Your task to perform on an android device: What is the recent news? Image 0: 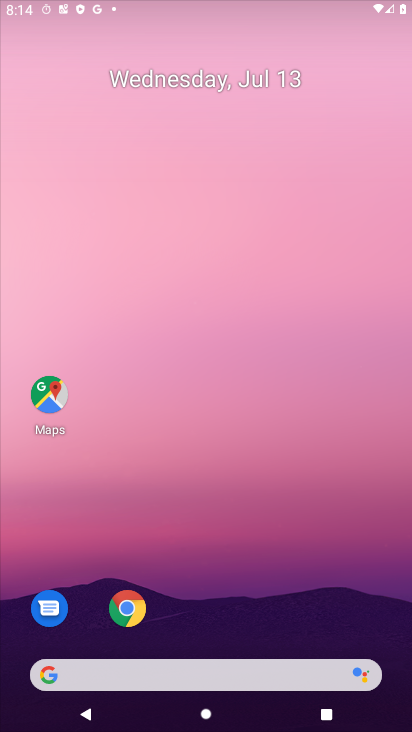
Step 0: drag from (280, 641) to (252, 238)
Your task to perform on an android device: What is the recent news? Image 1: 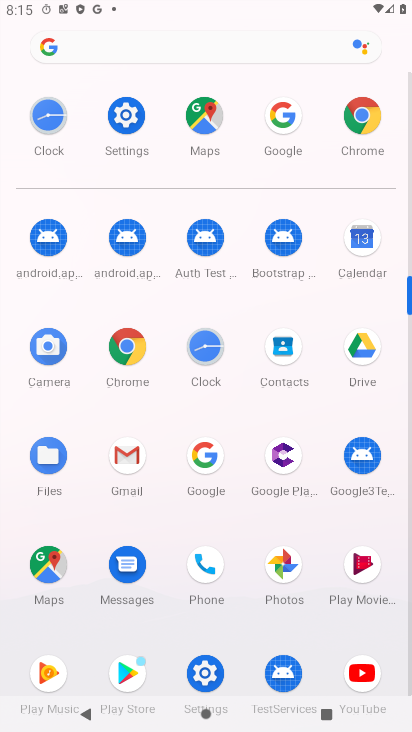
Step 1: click (129, 104)
Your task to perform on an android device: What is the recent news? Image 2: 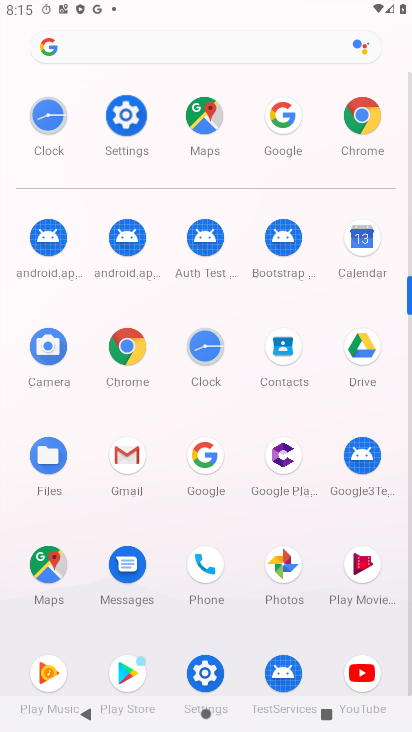
Step 2: click (130, 104)
Your task to perform on an android device: What is the recent news? Image 3: 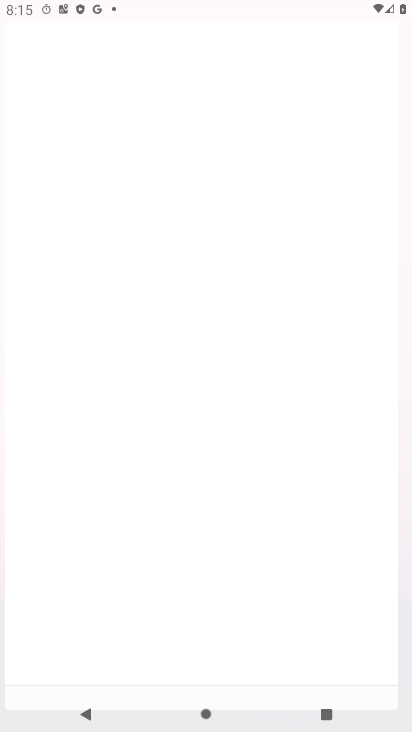
Step 3: click (156, 115)
Your task to perform on an android device: What is the recent news? Image 4: 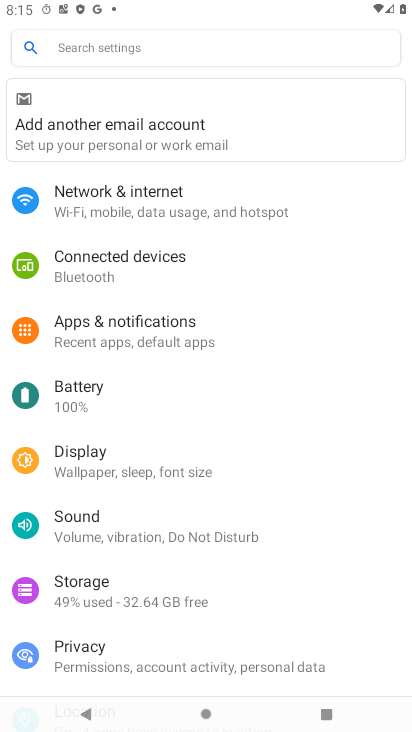
Step 4: press back button
Your task to perform on an android device: What is the recent news? Image 5: 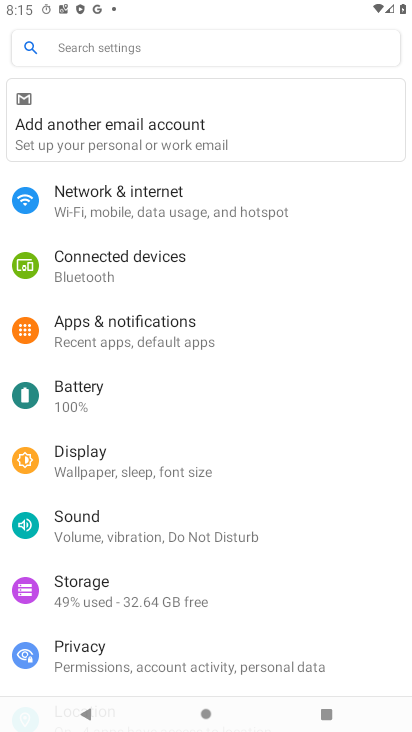
Step 5: press back button
Your task to perform on an android device: What is the recent news? Image 6: 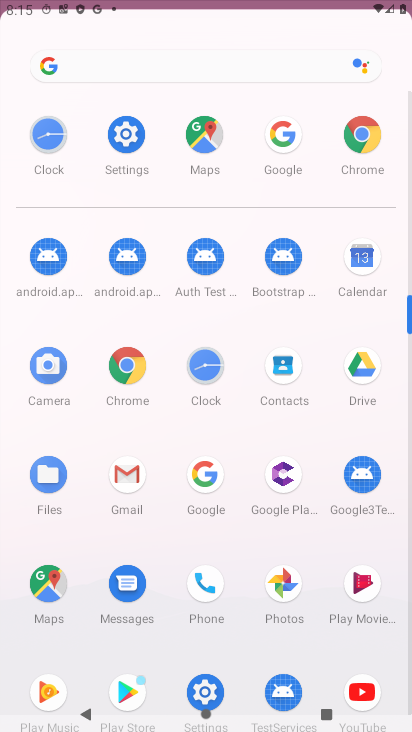
Step 6: press back button
Your task to perform on an android device: What is the recent news? Image 7: 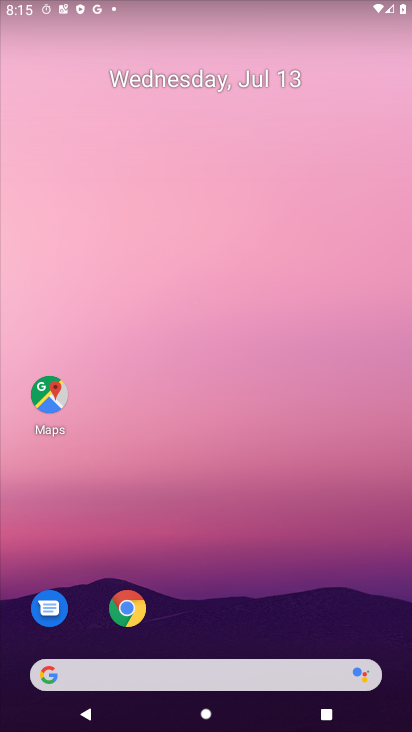
Step 7: drag from (166, 331) to (136, 11)
Your task to perform on an android device: What is the recent news? Image 8: 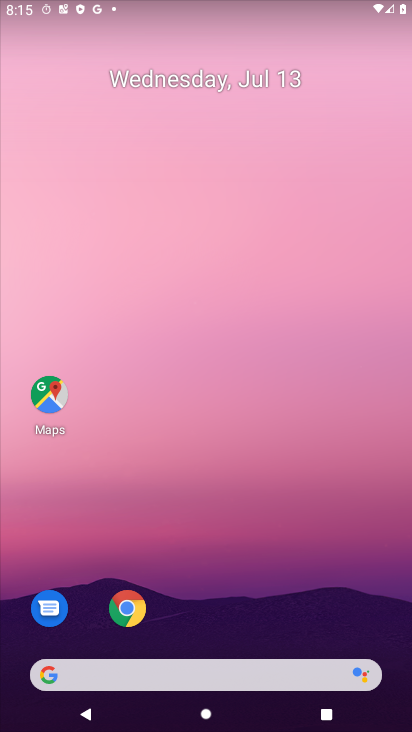
Step 8: drag from (260, 391) to (216, 76)
Your task to perform on an android device: What is the recent news? Image 9: 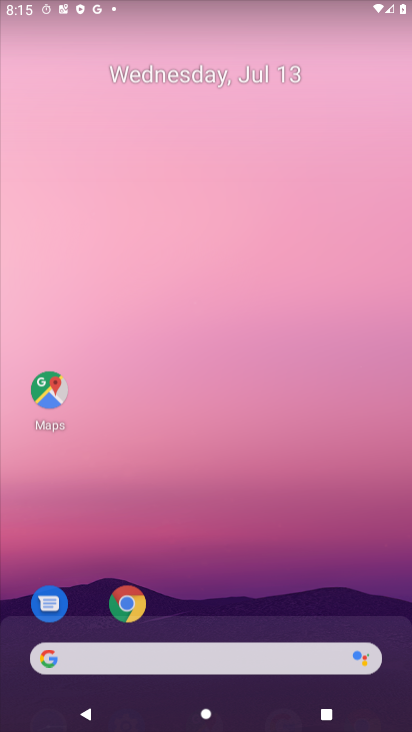
Step 9: drag from (198, 611) to (104, 30)
Your task to perform on an android device: What is the recent news? Image 10: 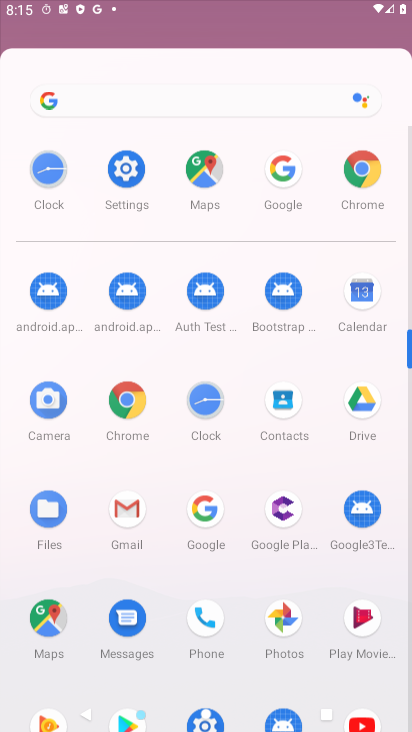
Step 10: drag from (232, 440) to (147, 62)
Your task to perform on an android device: What is the recent news? Image 11: 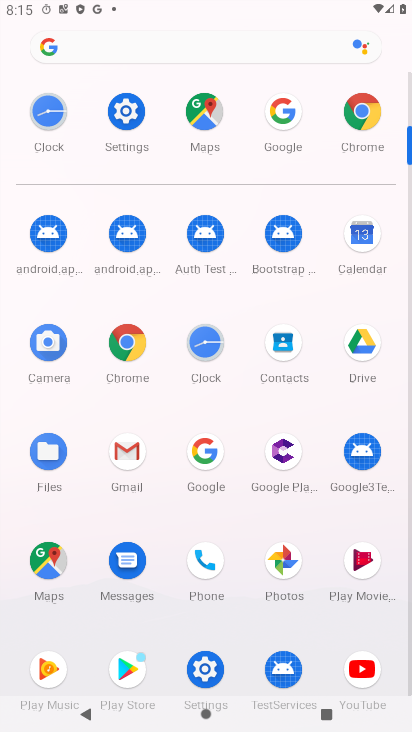
Step 11: click (356, 106)
Your task to perform on an android device: What is the recent news? Image 12: 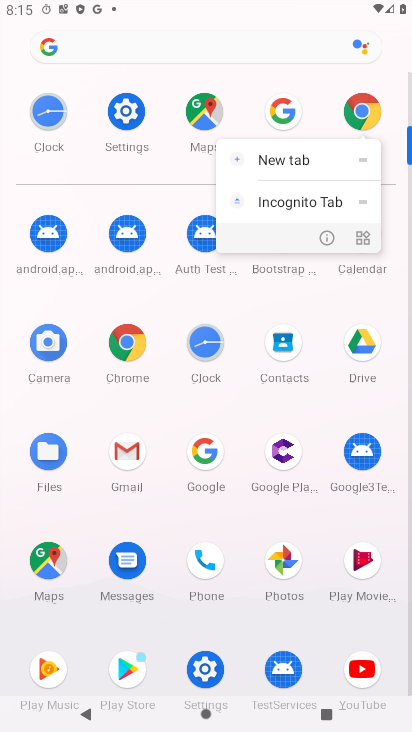
Step 12: click (365, 114)
Your task to perform on an android device: What is the recent news? Image 13: 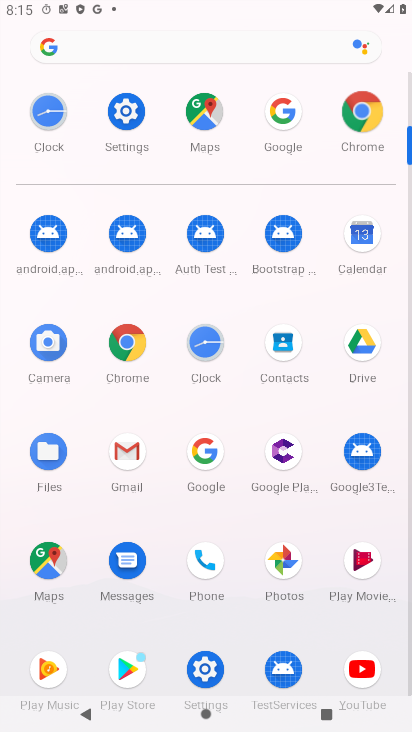
Step 13: click (365, 114)
Your task to perform on an android device: What is the recent news? Image 14: 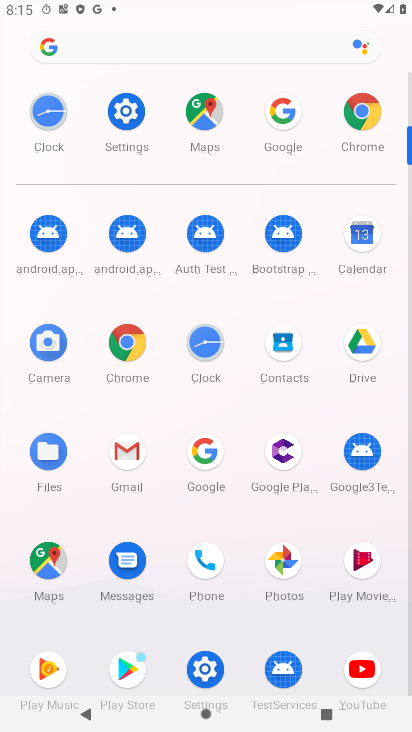
Step 14: click (349, 103)
Your task to perform on an android device: What is the recent news? Image 15: 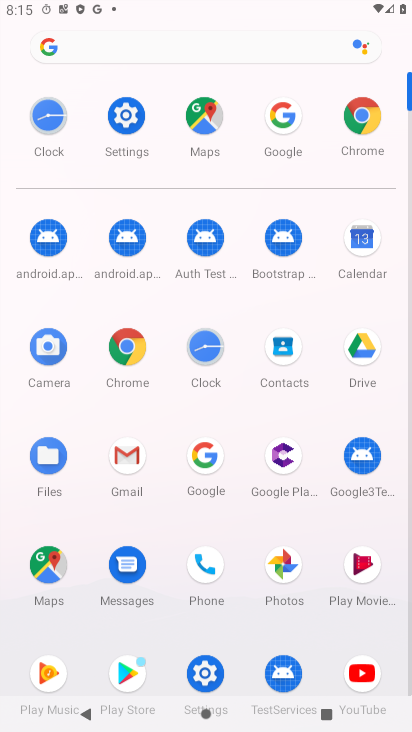
Step 15: click (361, 115)
Your task to perform on an android device: What is the recent news? Image 16: 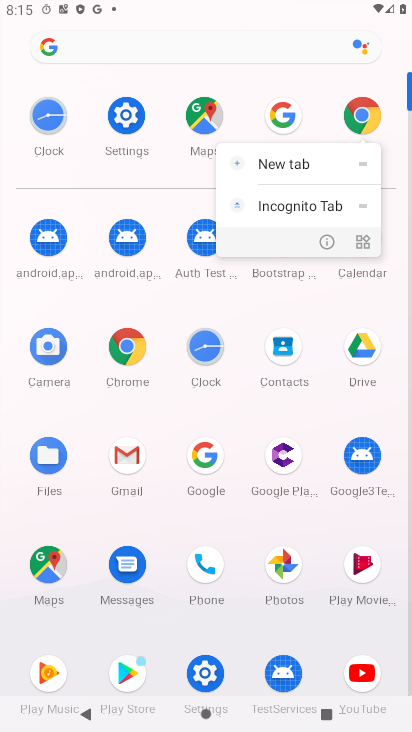
Step 16: click (362, 116)
Your task to perform on an android device: What is the recent news? Image 17: 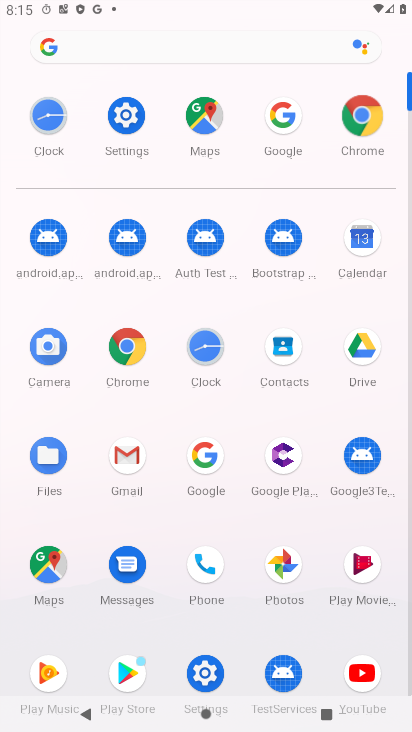
Step 17: click (361, 107)
Your task to perform on an android device: What is the recent news? Image 18: 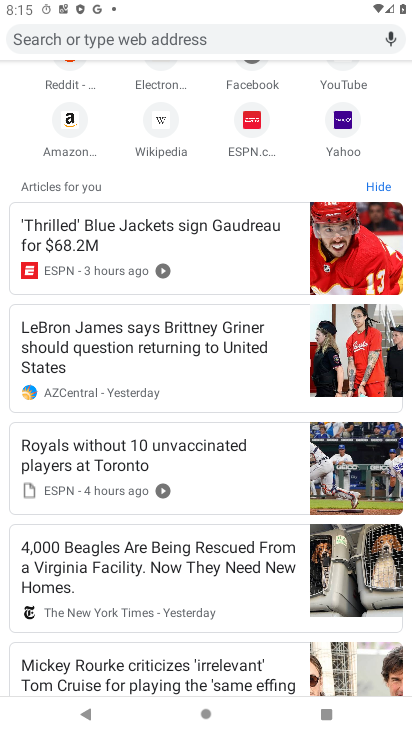
Step 18: task complete